Your task to perform on an android device: turn notification dots on Image 0: 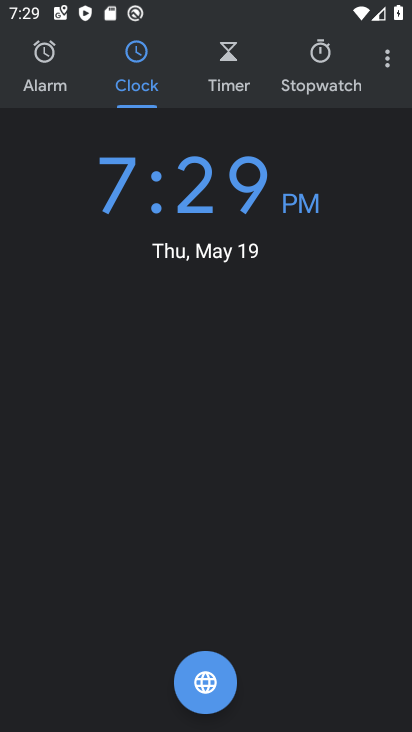
Step 0: press home button
Your task to perform on an android device: turn notification dots on Image 1: 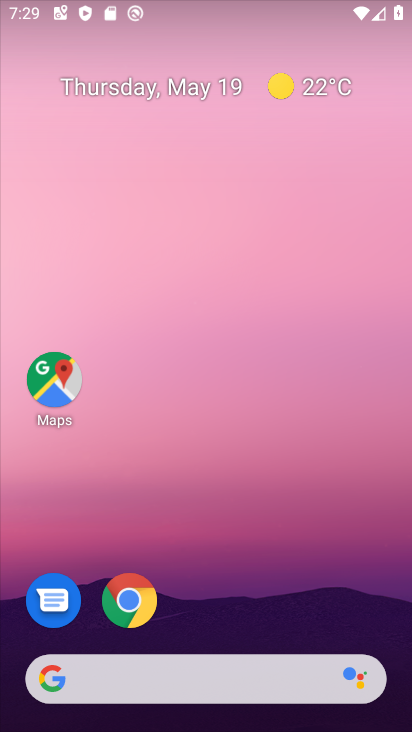
Step 1: drag from (285, 589) to (247, 83)
Your task to perform on an android device: turn notification dots on Image 2: 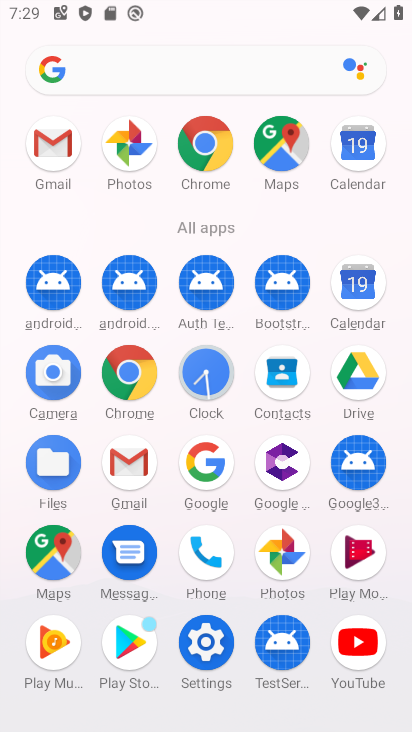
Step 2: click (209, 641)
Your task to perform on an android device: turn notification dots on Image 3: 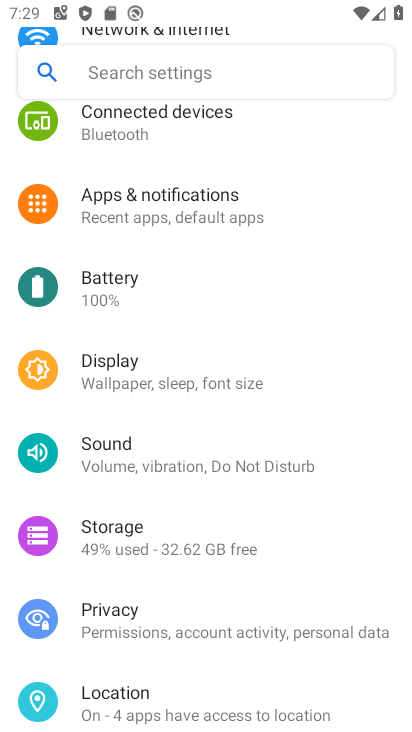
Step 3: click (168, 209)
Your task to perform on an android device: turn notification dots on Image 4: 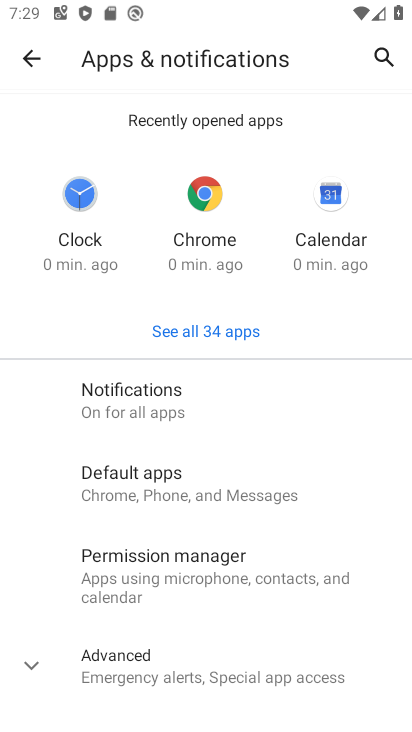
Step 4: click (107, 401)
Your task to perform on an android device: turn notification dots on Image 5: 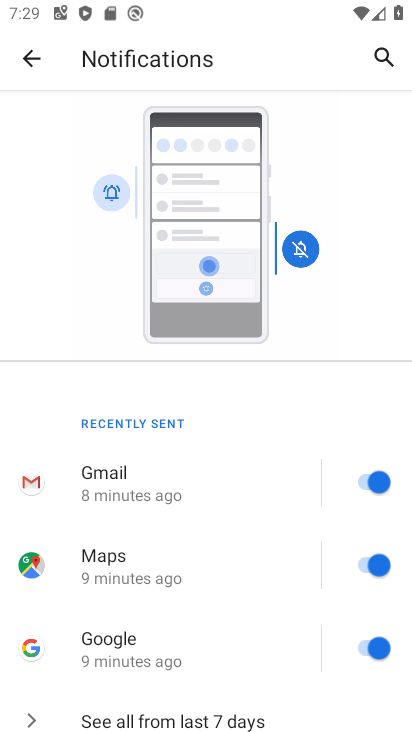
Step 5: drag from (210, 670) to (318, 253)
Your task to perform on an android device: turn notification dots on Image 6: 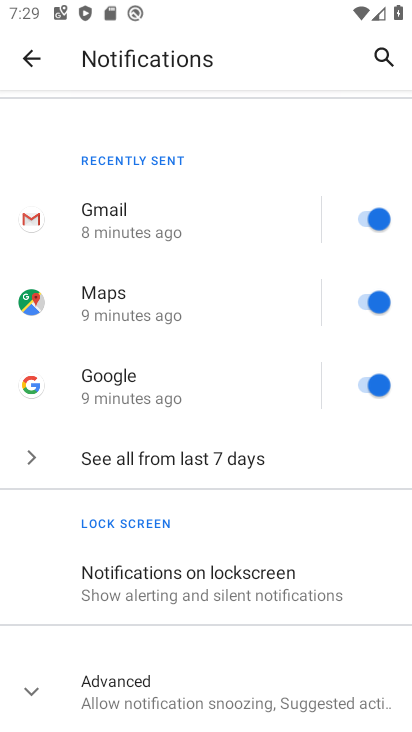
Step 6: click (95, 673)
Your task to perform on an android device: turn notification dots on Image 7: 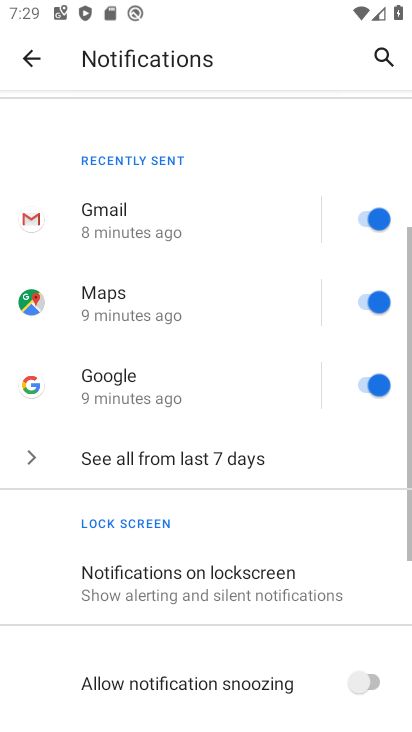
Step 7: task complete